Your task to perform on an android device: turn vacation reply on in the gmail app Image 0: 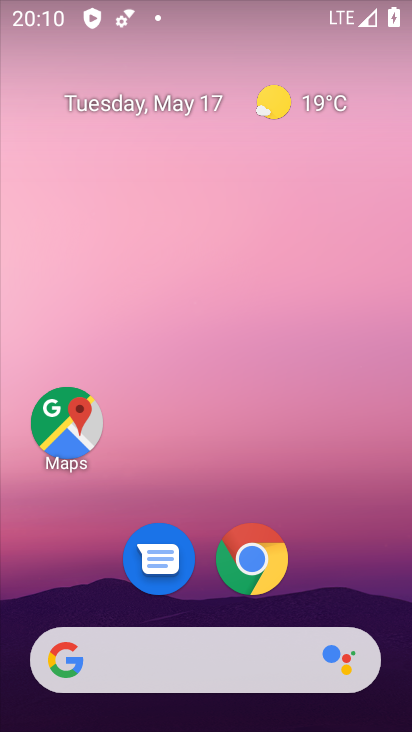
Step 0: drag from (220, 603) to (258, 195)
Your task to perform on an android device: turn vacation reply on in the gmail app Image 1: 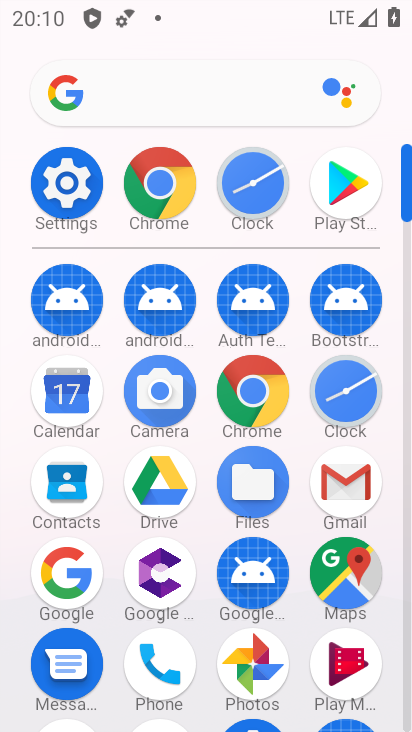
Step 1: click (358, 478)
Your task to perform on an android device: turn vacation reply on in the gmail app Image 2: 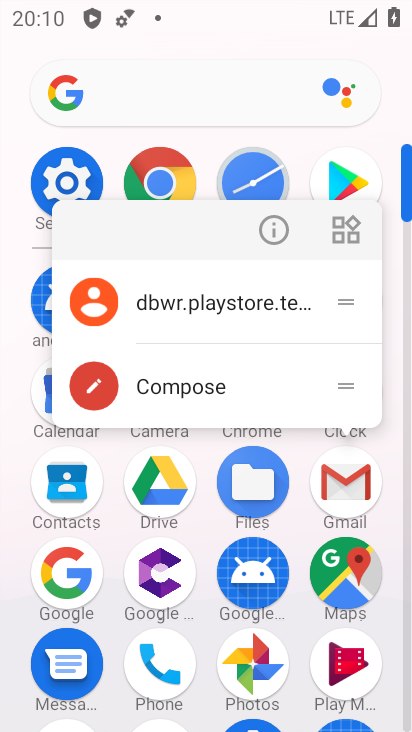
Step 2: click (186, 308)
Your task to perform on an android device: turn vacation reply on in the gmail app Image 3: 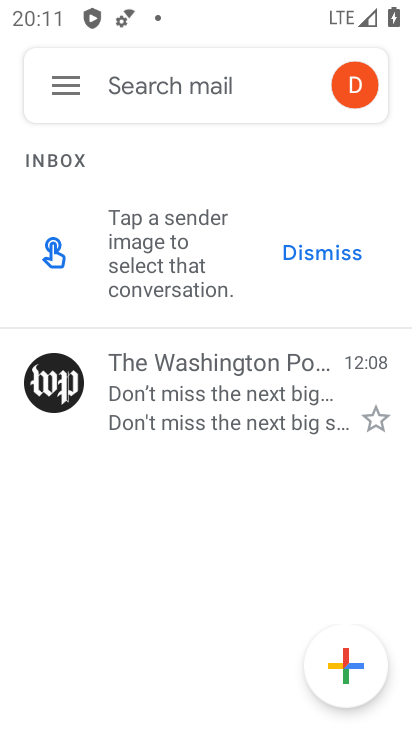
Step 3: click (54, 88)
Your task to perform on an android device: turn vacation reply on in the gmail app Image 4: 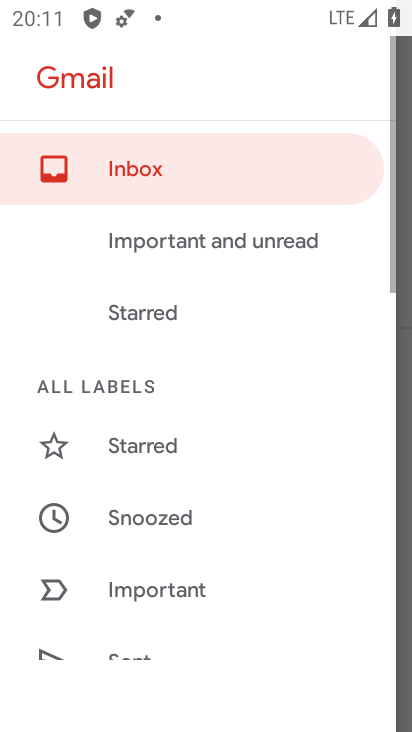
Step 4: drag from (199, 474) to (267, 34)
Your task to perform on an android device: turn vacation reply on in the gmail app Image 5: 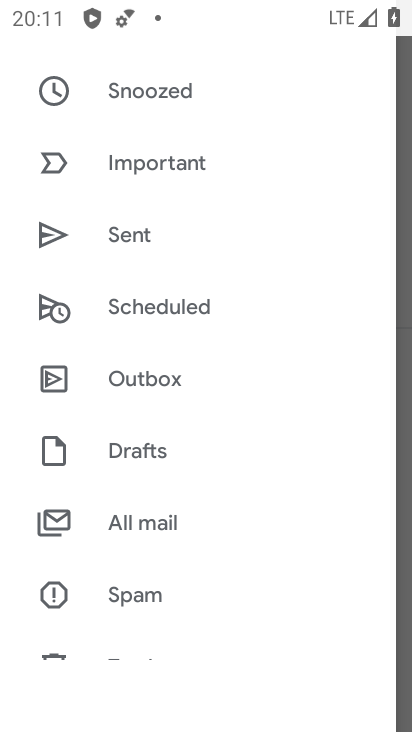
Step 5: drag from (167, 579) to (261, 77)
Your task to perform on an android device: turn vacation reply on in the gmail app Image 6: 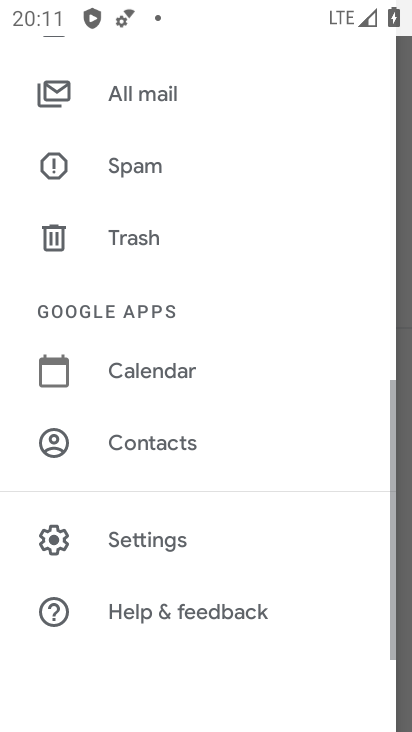
Step 6: click (121, 545)
Your task to perform on an android device: turn vacation reply on in the gmail app Image 7: 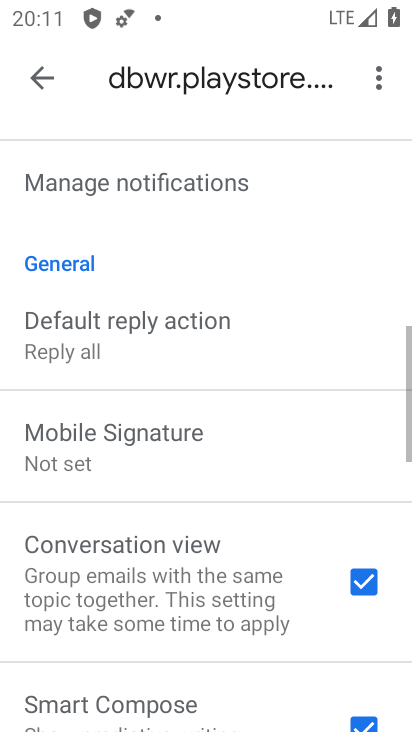
Step 7: drag from (214, 550) to (265, 108)
Your task to perform on an android device: turn vacation reply on in the gmail app Image 8: 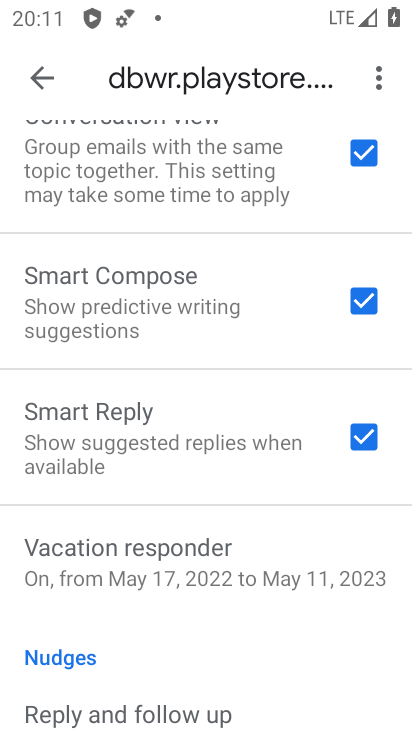
Step 8: click (125, 560)
Your task to perform on an android device: turn vacation reply on in the gmail app Image 9: 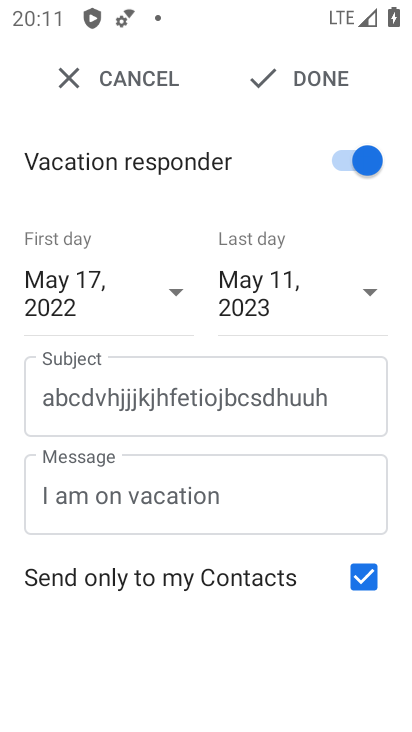
Step 9: click (291, 73)
Your task to perform on an android device: turn vacation reply on in the gmail app Image 10: 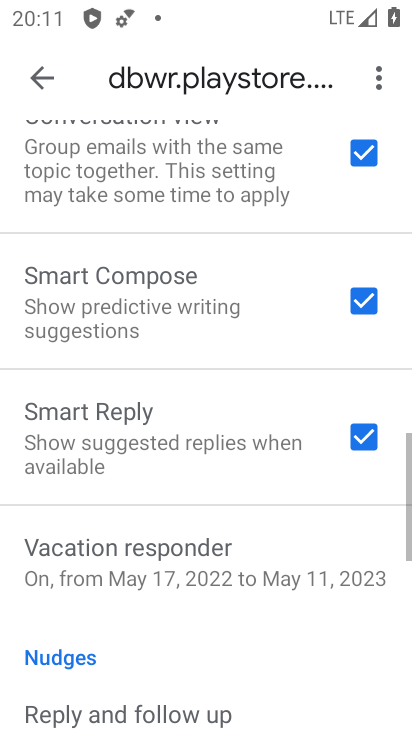
Step 10: task complete